Your task to perform on an android device: Show me recent news Image 0: 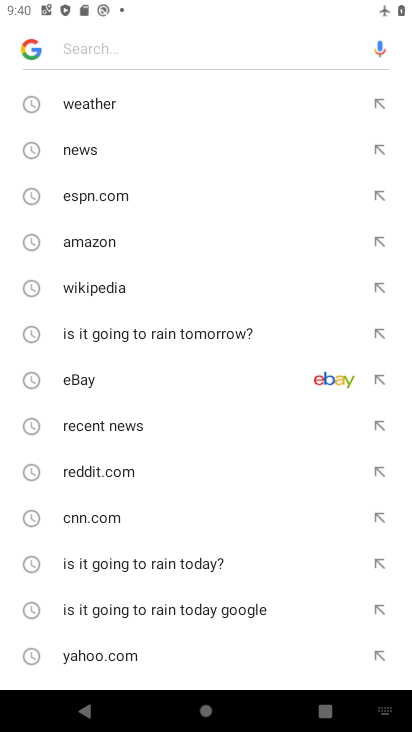
Step 0: press home button
Your task to perform on an android device: Show me recent news Image 1: 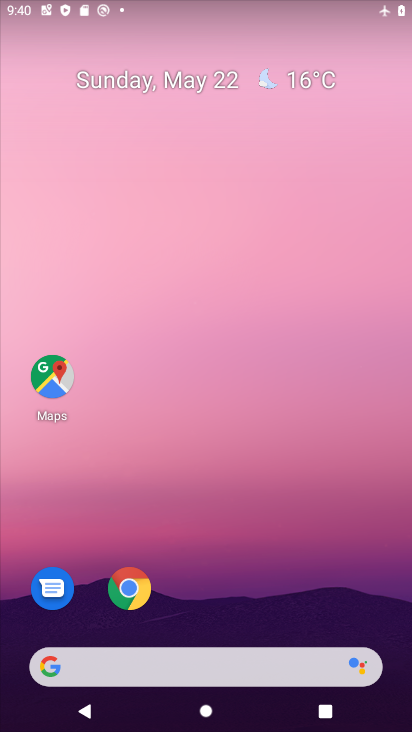
Step 1: click (134, 605)
Your task to perform on an android device: Show me recent news Image 2: 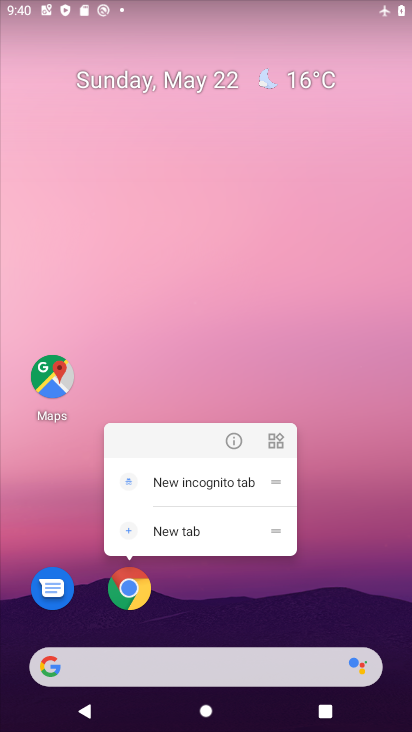
Step 2: click (133, 581)
Your task to perform on an android device: Show me recent news Image 3: 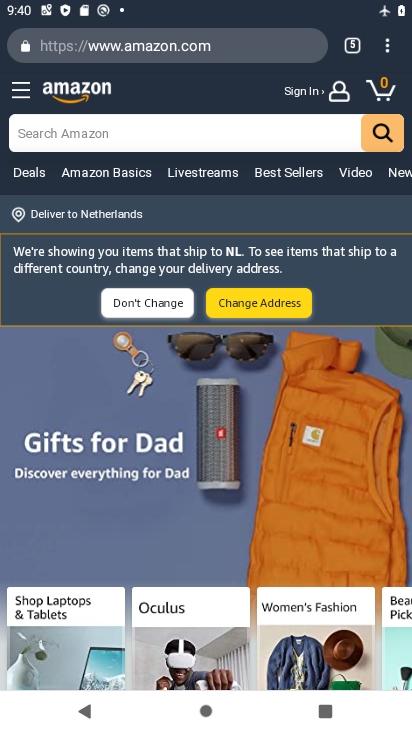
Step 3: click (346, 48)
Your task to perform on an android device: Show me recent news Image 4: 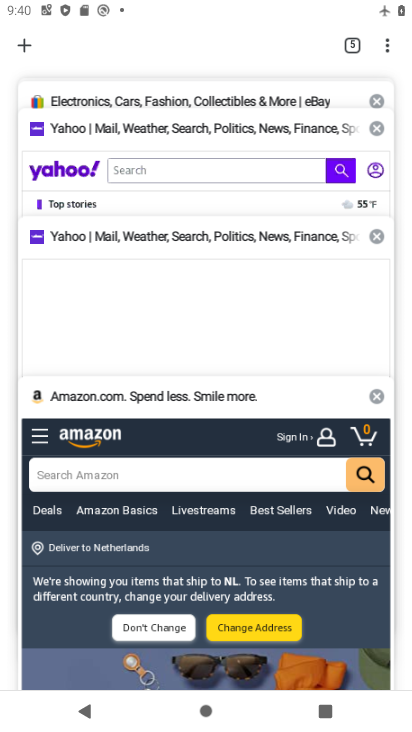
Step 4: press home button
Your task to perform on an android device: Show me recent news Image 5: 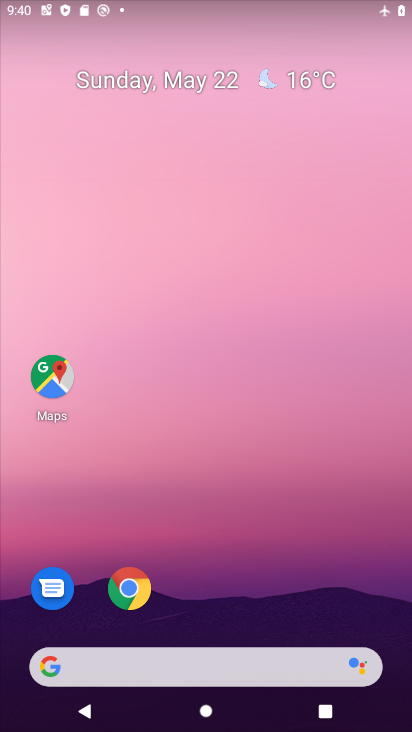
Step 5: click (129, 599)
Your task to perform on an android device: Show me recent news Image 6: 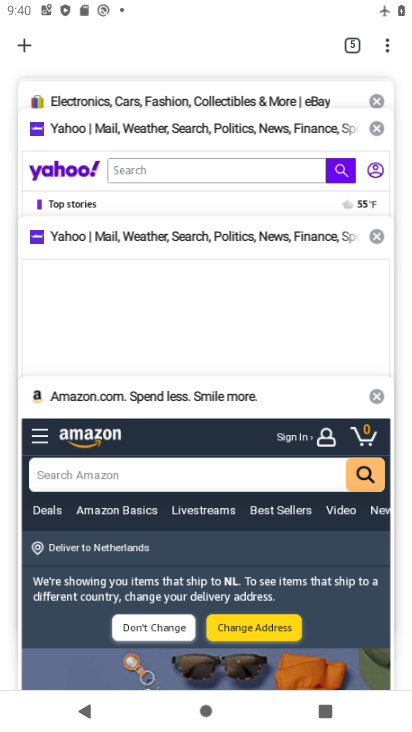
Step 6: press home button
Your task to perform on an android device: Show me recent news Image 7: 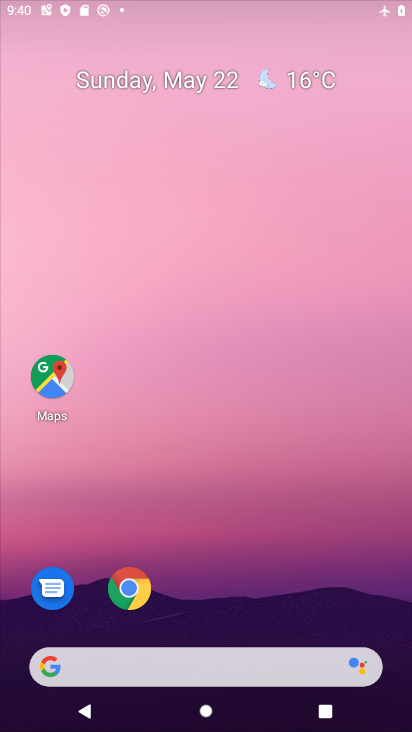
Step 7: drag from (222, 613) to (219, 197)
Your task to perform on an android device: Show me recent news Image 8: 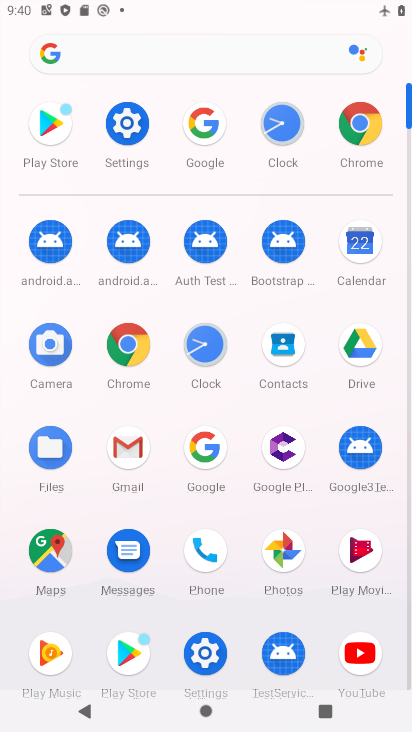
Step 8: click (201, 431)
Your task to perform on an android device: Show me recent news Image 9: 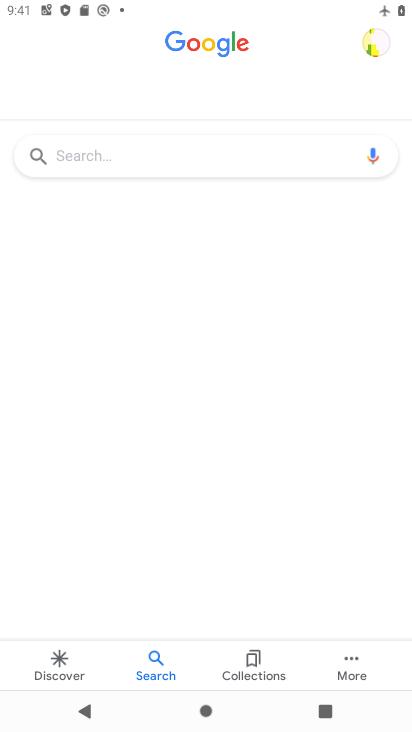
Step 9: click (185, 165)
Your task to perform on an android device: Show me recent news Image 10: 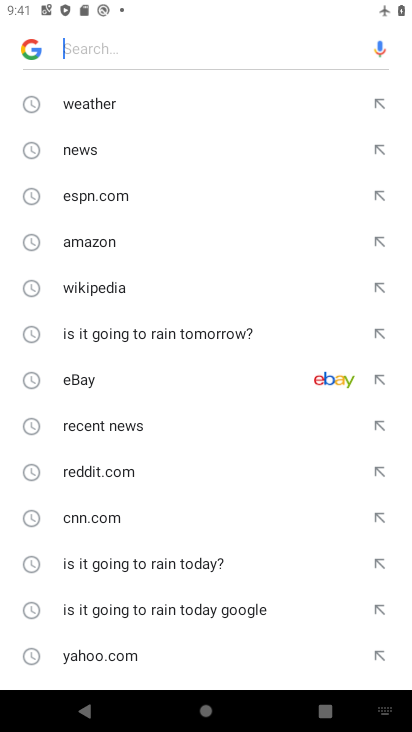
Step 10: click (81, 154)
Your task to perform on an android device: Show me recent news Image 11: 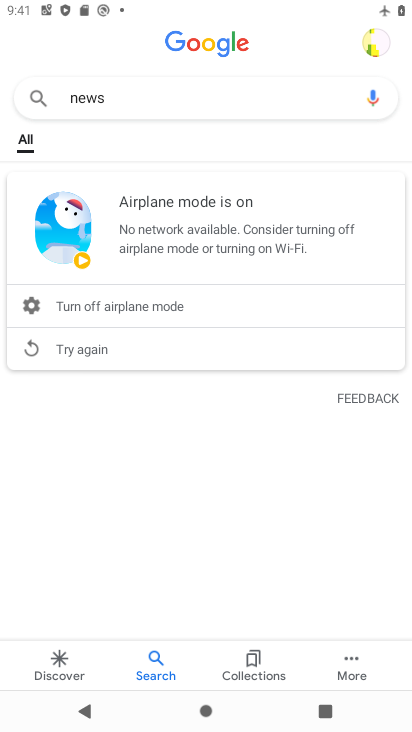
Step 11: task complete